Your task to perform on an android device: toggle notifications settings in the gmail app Image 0: 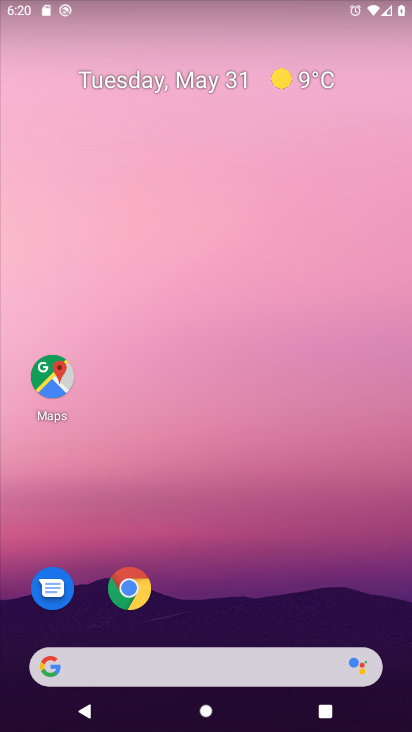
Step 0: drag from (230, 589) to (232, 225)
Your task to perform on an android device: toggle notifications settings in the gmail app Image 1: 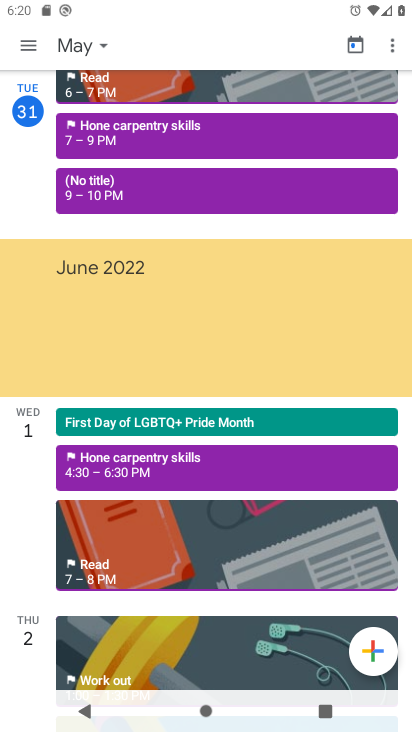
Step 1: press home button
Your task to perform on an android device: toggle notifications settings in the gmail app Image 2: 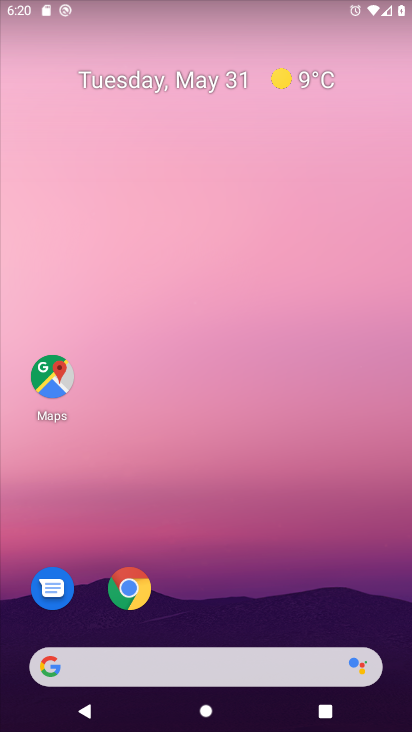
Step 2: drag from (178, 616) to (236, 241)
Your task to perform on an android device: toggle notifications settings in the gmail app Image 3: 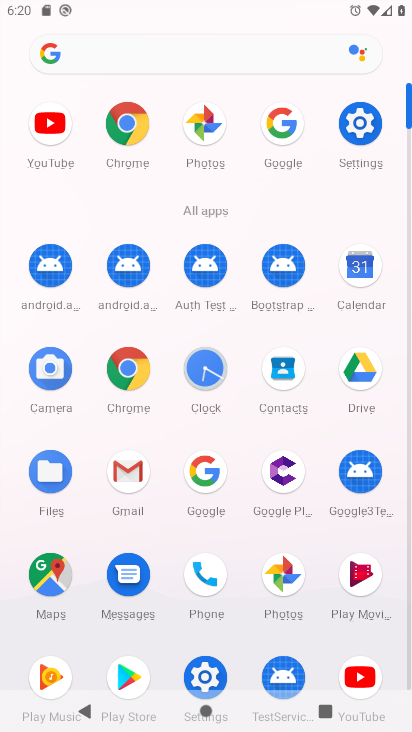
Step 3: click (118, 490)
Your task to perform on an android device: toggle notifications settings in the gmail app Image 4: 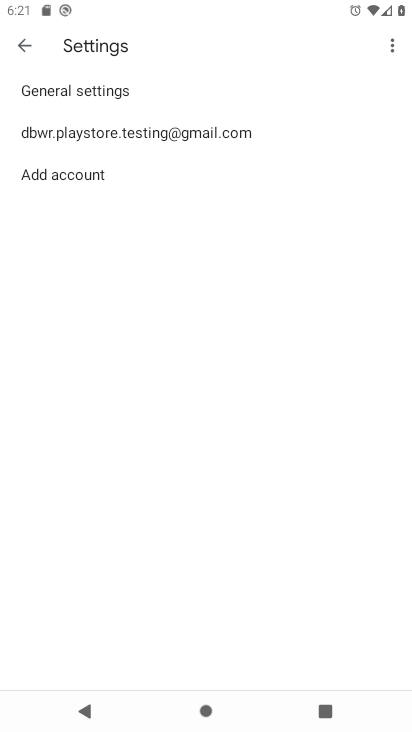
Step 4: click (139, 129)
Your task to perform on an android device: toggle notifications settings in the gmail app Image 5: 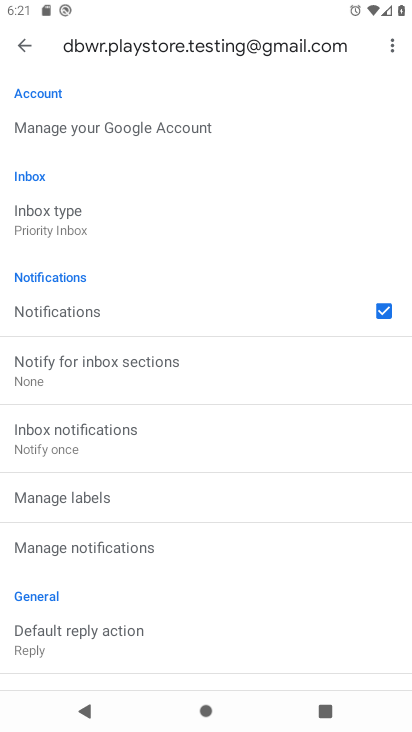
Step 5: click (93, 555)
Your task to perform on an android device: toggle notifications settings in the gmail app Image 6: 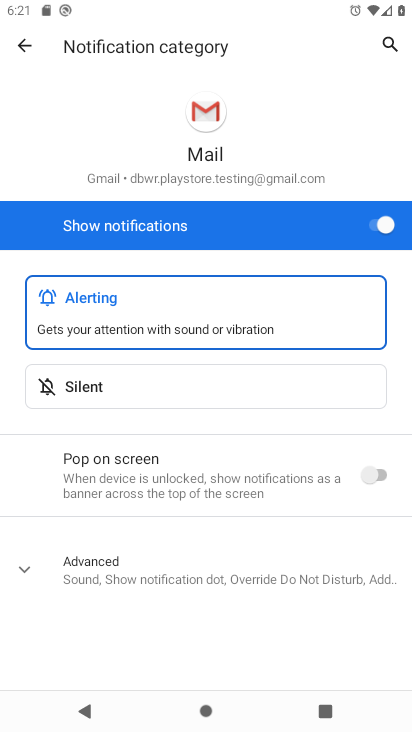
Step 6: click (374, 236)
Your task to perform on an android device: toggle notifications settings in the gmail app Image 7: 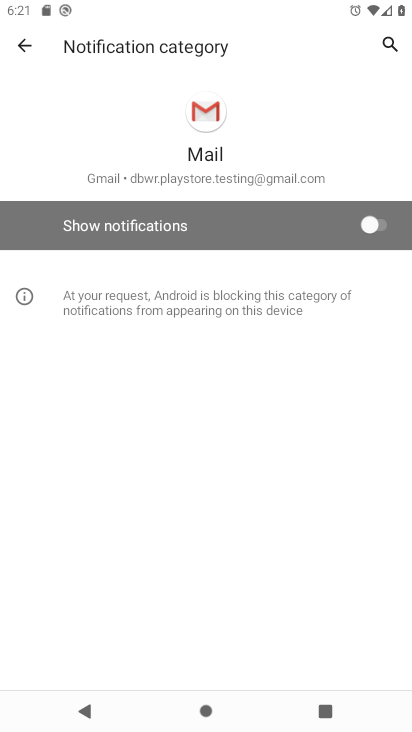
Step 7: task complete